Your task to perform on an android device: toggle improve location accuracy Image 0: 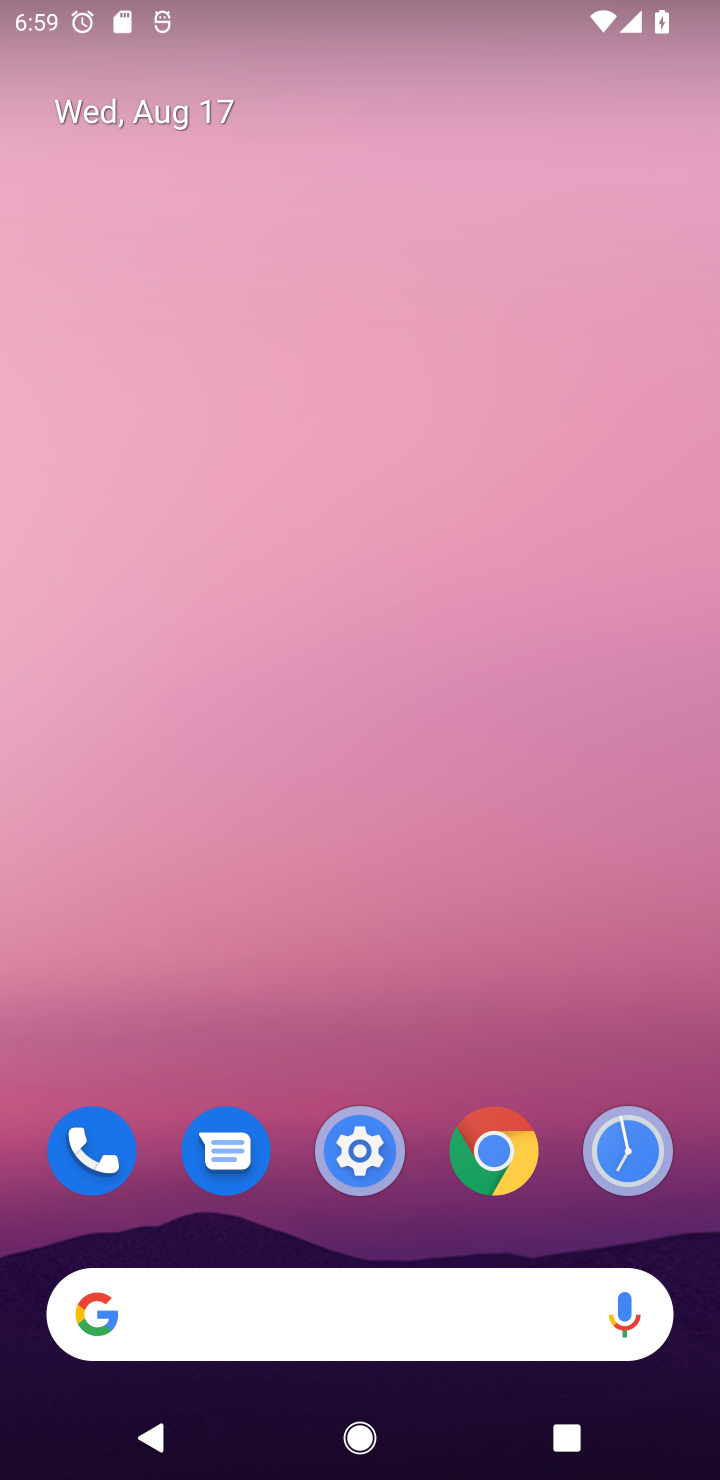
Step 0: drag from (389, 1254) to (474, 71)
Your task to perform on an android device: toggle improve location accuracy Image 1: 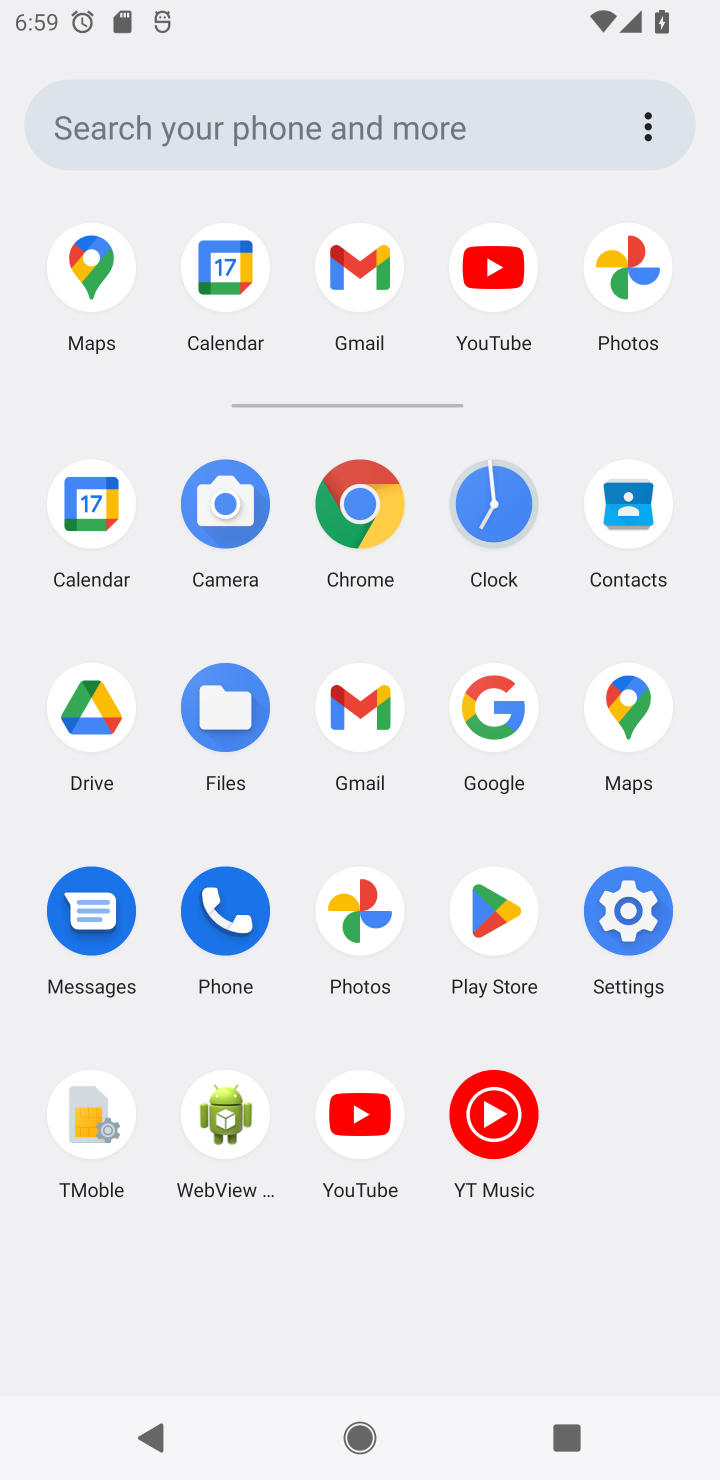
Step 1: click (613, 960)
Your task to perform on an android device: toggle improve location accuracy Image 2: 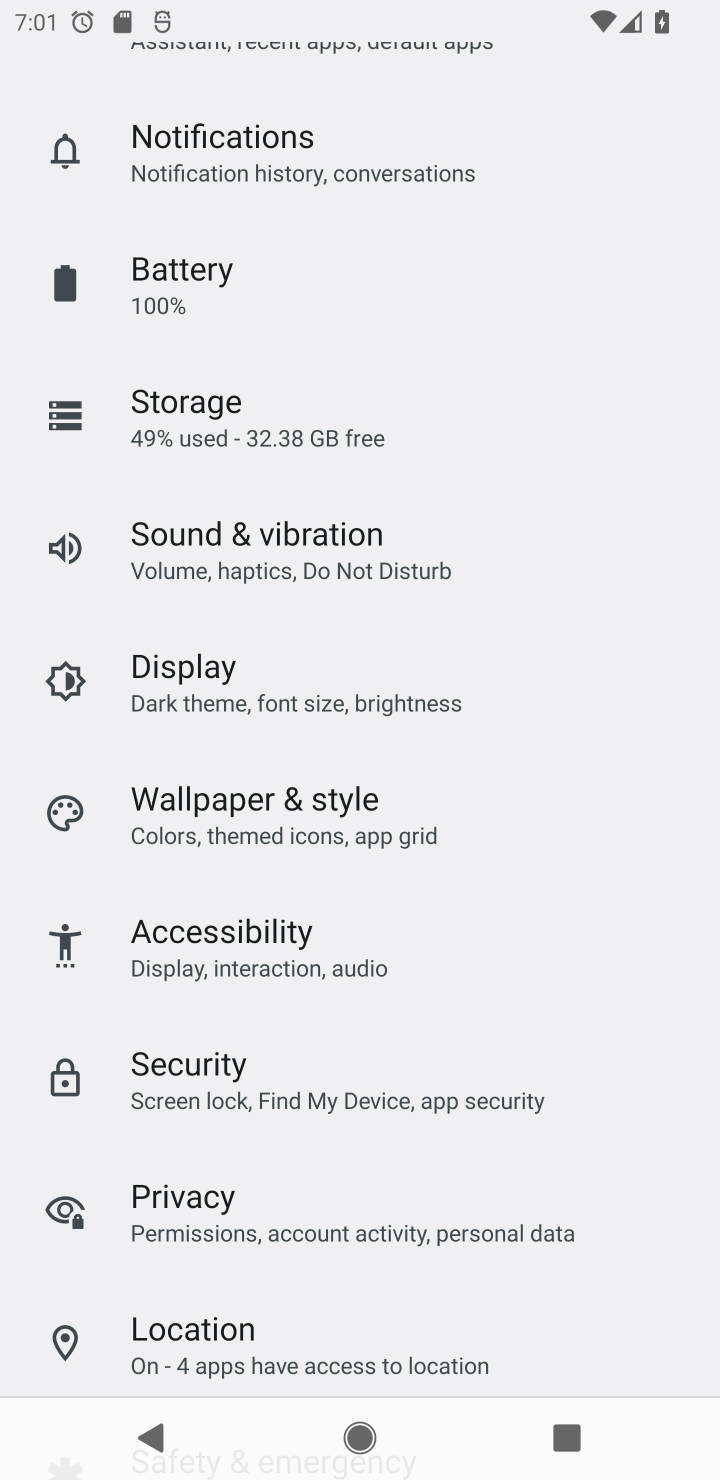
Step 2: click (211, 1291)
Your task to perform on an android device: toggle improve location accuracy Image 3: 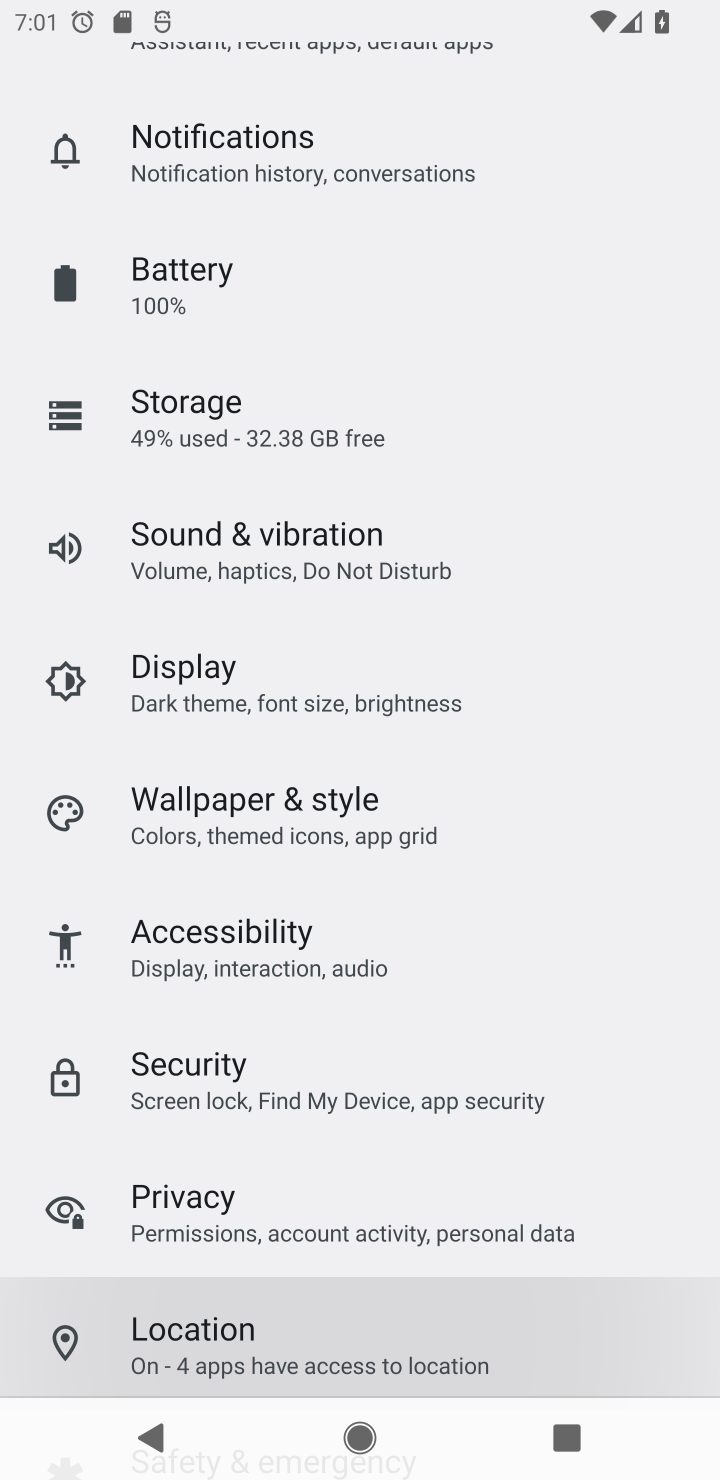
Step 3: task complete